Your task to perform on an android device: clear history in the chrome app Image 0: 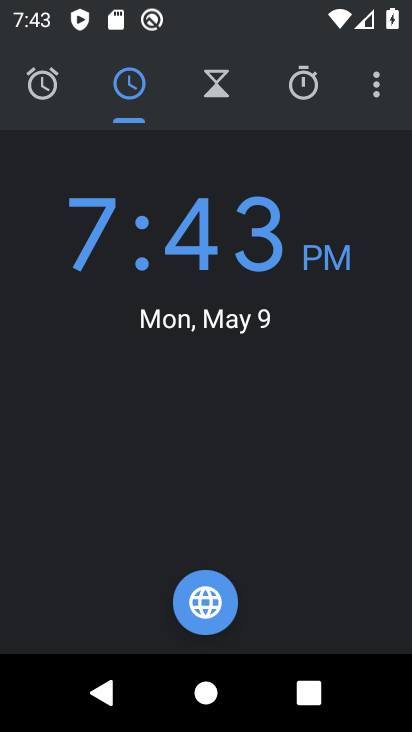
Step 0: press home button
Your task to perform on an android device: clear history in the chrome app Image 1: 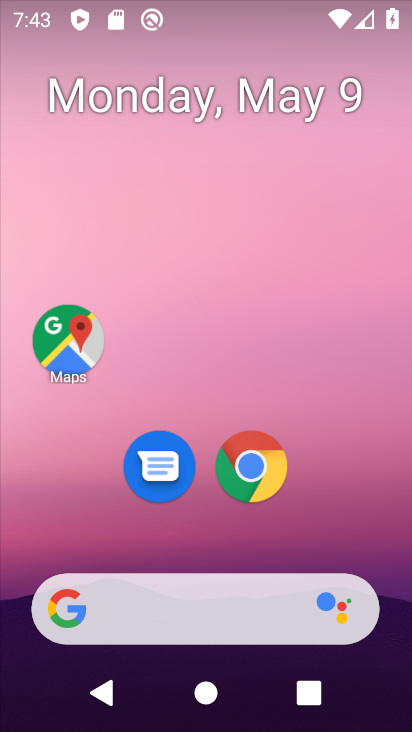
Step 1: click (259, 455)
Your task to perform on an android device: clear history in the chrome app Image 2: 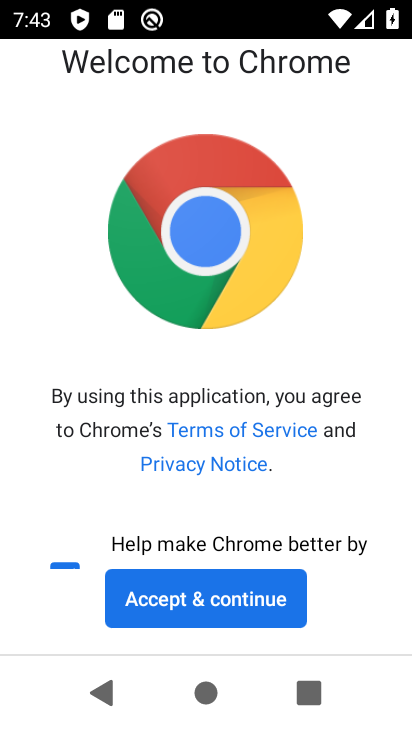
Step 2: click (246, 579)
Your task to perform on an android device: clear history in the chrome app Image 3: 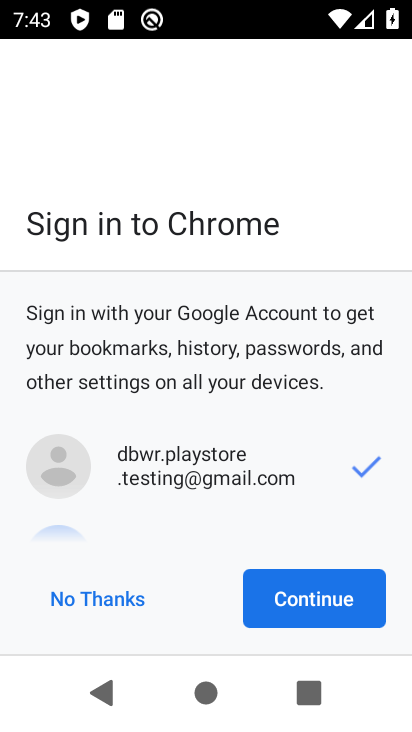
Step 3: click (300, 590)
Your task to perform on an android device: clear history in the chrome app Image 4: 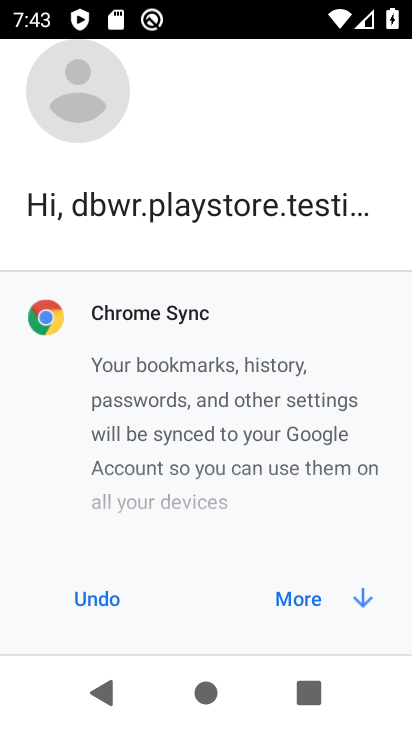
Step 4: click (300, 590)
Your task to perform on an android device: clear history in the chrome app Image 5: 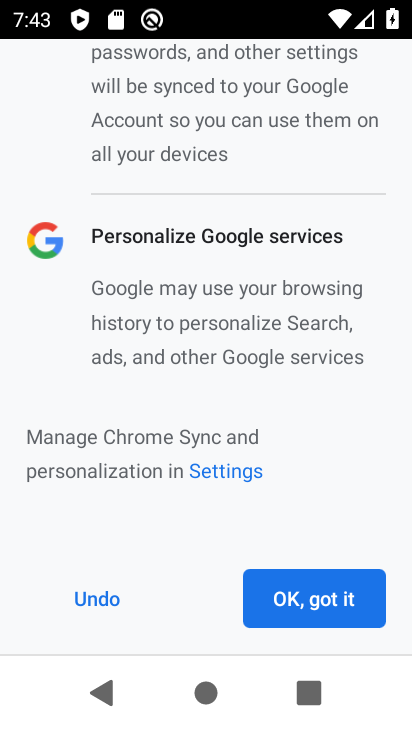
Step 5: click (332, 606)
Your task to perform on an android device: clear history in the chrome app Image 6: 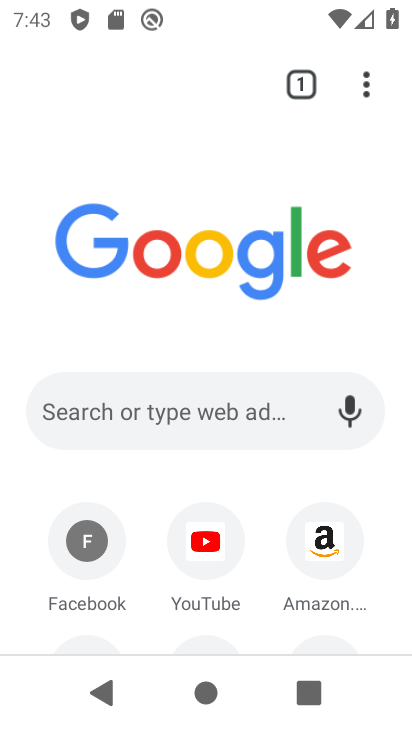
Step 6: click (374, 85)
Your task to perform on an android device: clear history in the chrome app Image 7: 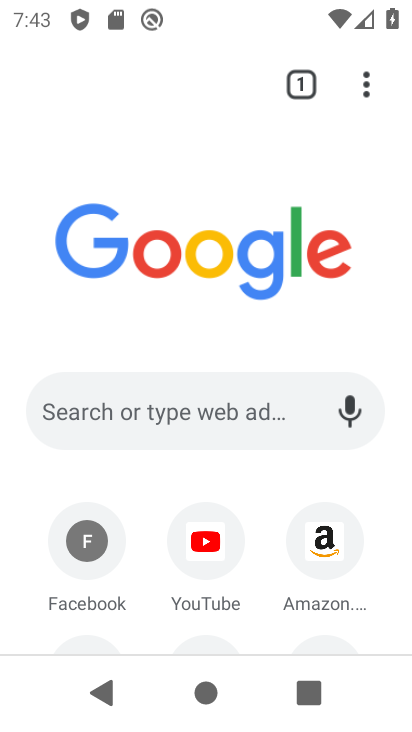
Step 7: click (370, 88)
Your task to perform on an android device: clear history in the chrome app Image 8: 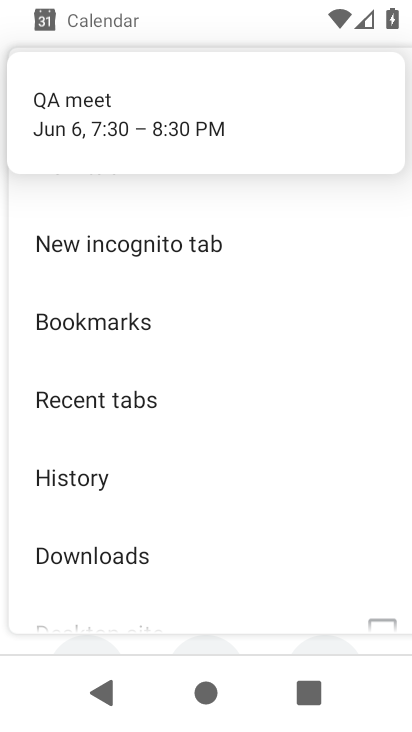
Step 8: click (184, 488)
Your task to perform on an android device: clear history in the chrome app Image 9: 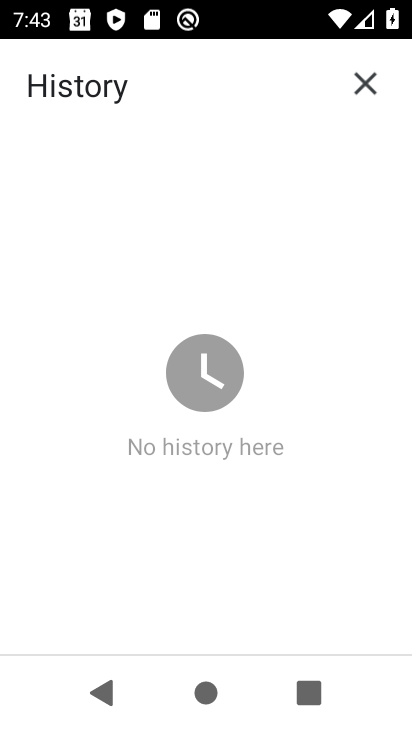
Step 9: task complete